Your task to perform on an android device: Open settings Image 0: 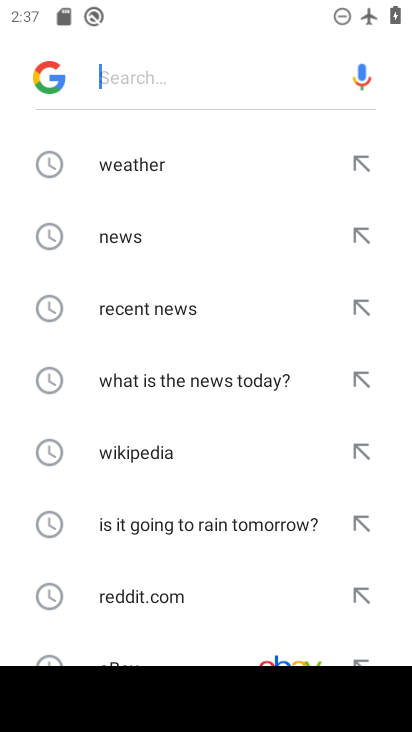
Step 0: press home button
Your task to perform on an android device: Open settings Image 1: 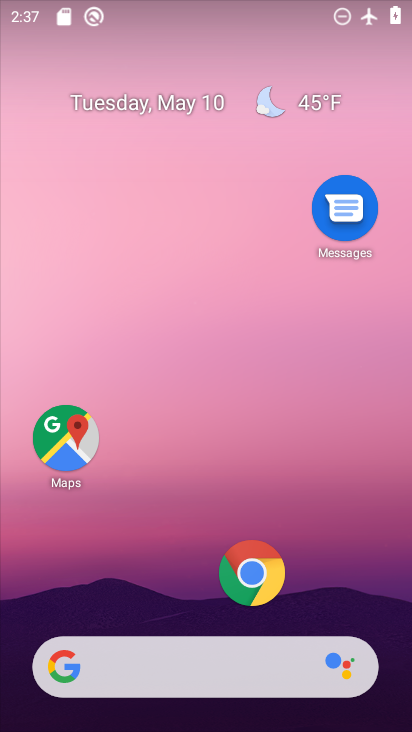
Step 1: drag from (202, 605) to (218, 478)
Your task to perform on an android device: Open settings Image 2: 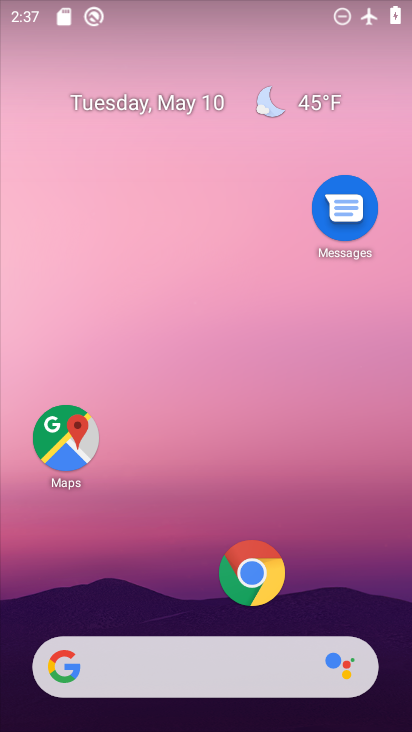
Step 2: drag from (173, 621) to (212, 291)
Your task to perform on an android device: Open settings Image 3: 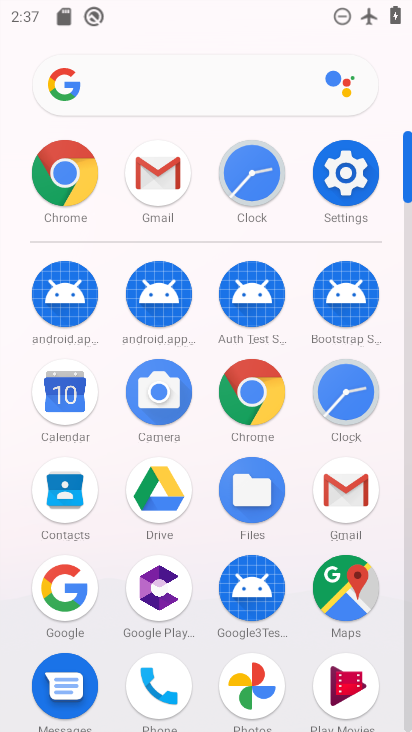
Step 3: click (341, 167)
Your task to perform on an android device: Open settings Image 4: 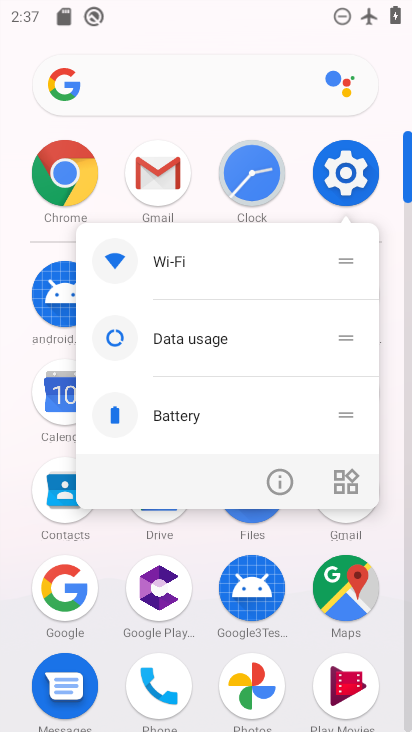
Step 4: click (269, 489)
Your task to perform on an android device: Open settings Image 5: 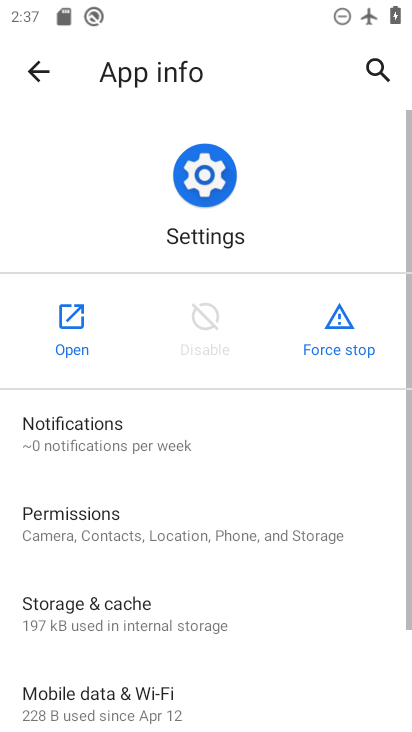
Step 5: click (85, 336)
Your task to perform on an android device: Open settings Image 6: 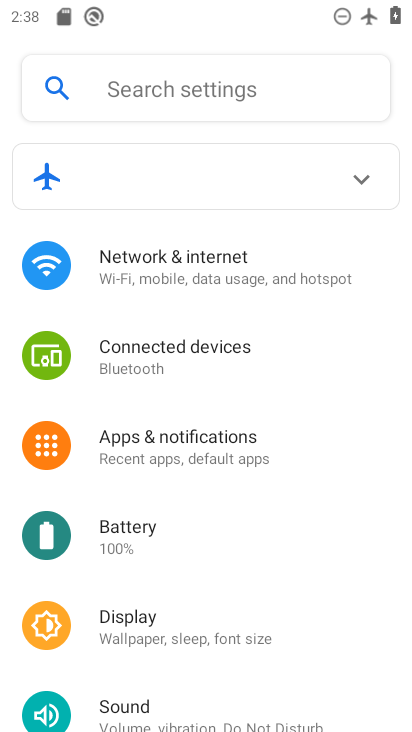
Step 6: task complete